Your task to perform on an android device: Search for sushi restaurants on Maps Image 0: 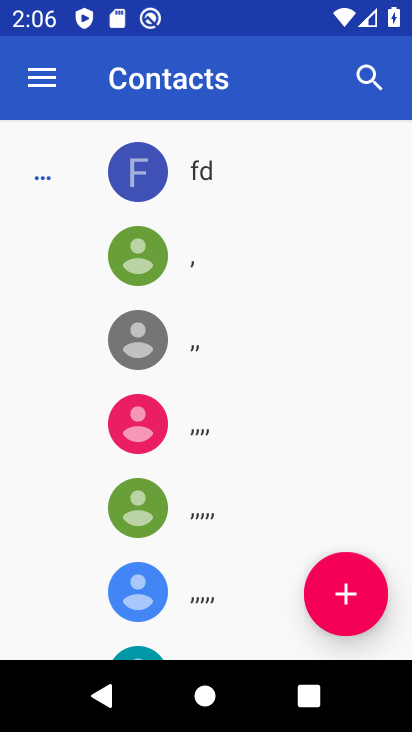
Step 0: press home button
Your task to perform on an android device: Search for sushi restaurants on Maps Image 1: 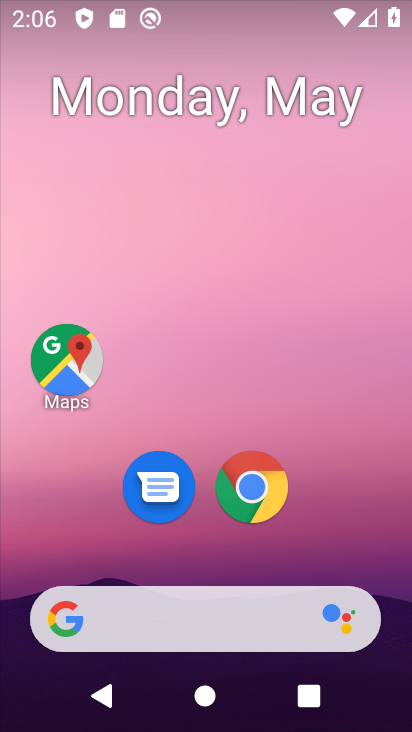
Step 1: click (74, 363)
Your task to perform on an android device: Search for sushi restaurants on Maps Image 2: 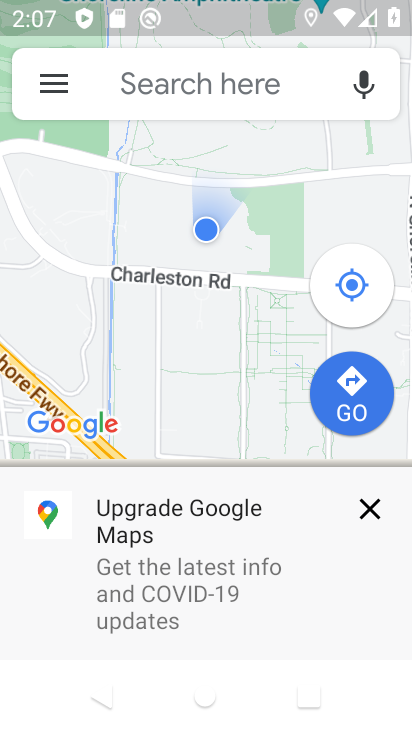
Step 2: click (185, 79)
Your task to perform on an android device: Search for sushi restaurants on Maps Image 3: 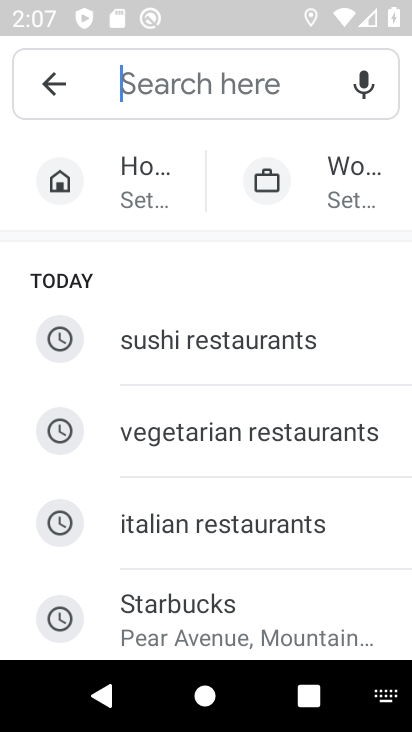
Step 3: click (219, 345)
Your task to perform on an android device: Search for sushi restaurants on Maps Image 4: 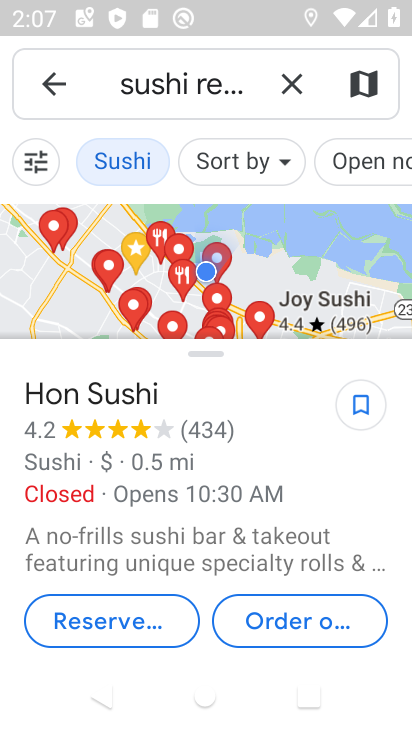
Step 4: task complete